Your task to perform on an android device: uninstall "Airtel Thanks" Image 0: 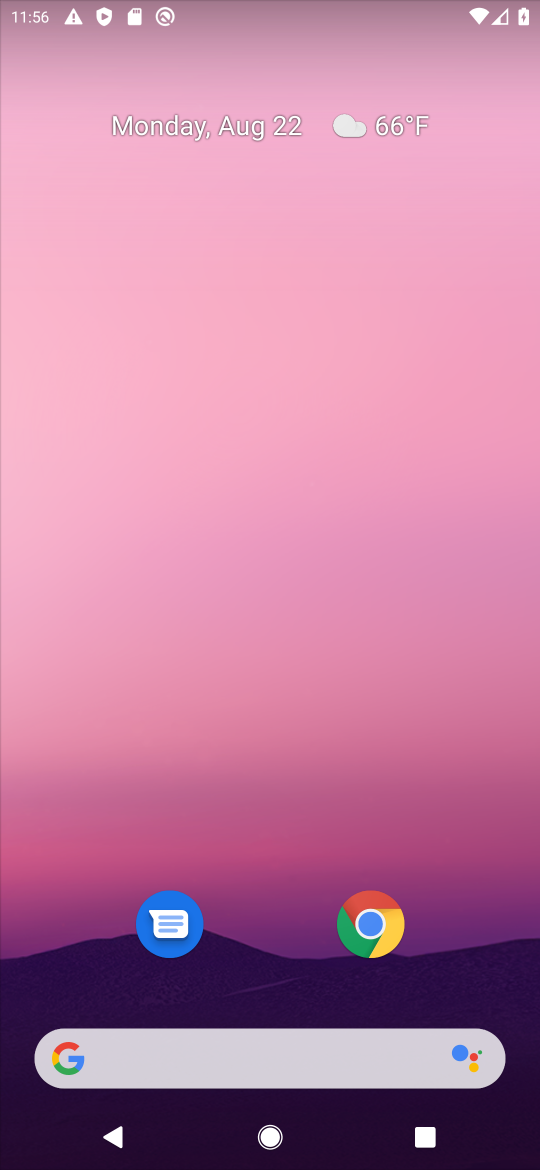
Step 0: press home button
Your task to perform on an android device: uninstall "Airtel Thanks" Image 1: 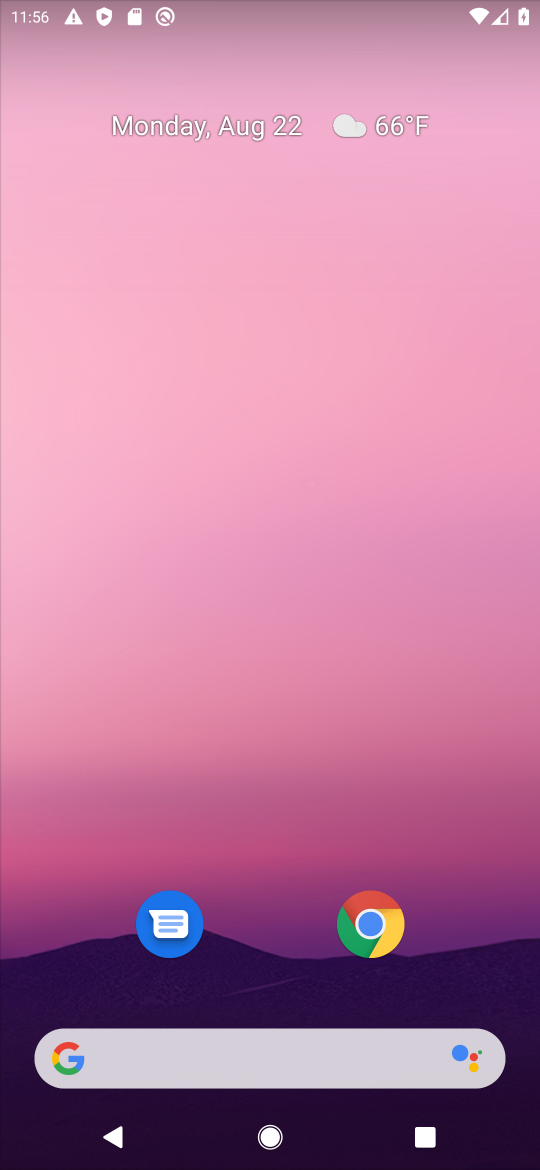
Step 1: drag from (454, 681) to (454, 122)
Your task to perform on an android device: uninstall "Airtel Thanks" Image 2: 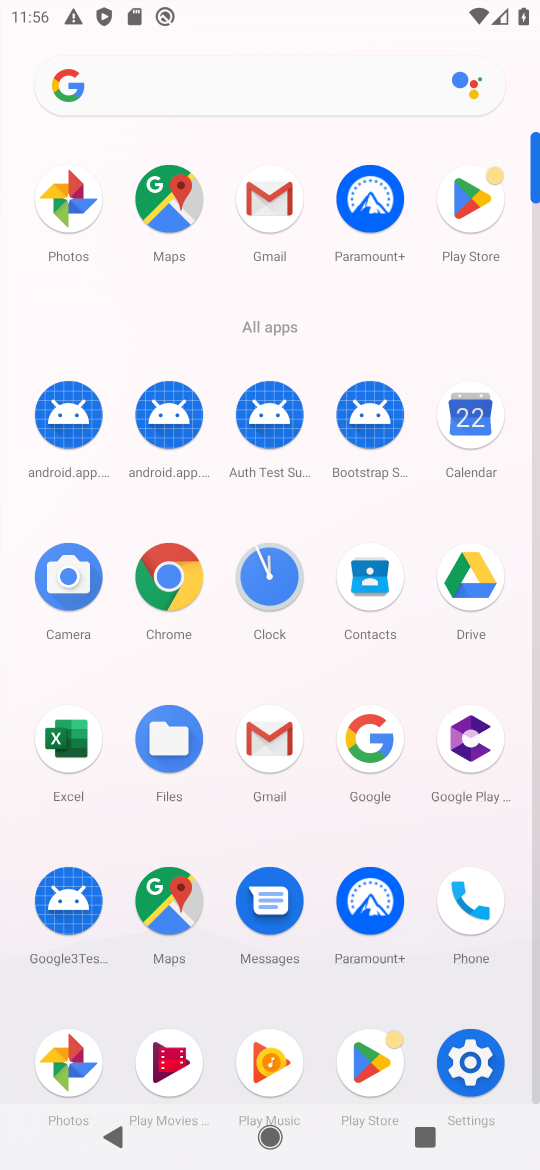
Step 2: click (484, 188)
Your task to perform on an android device: uninstall "Airtel Thanks" Image 3: 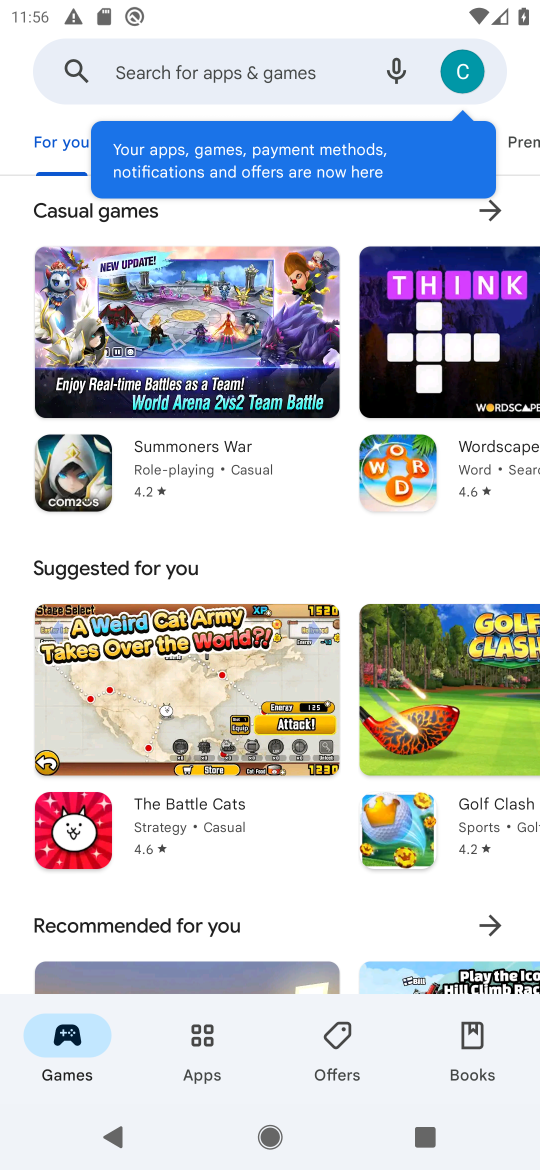
Step 3: click (125, 78)
Your task to perform on an android device: uninstall "Airtel Thanks" Image 4: 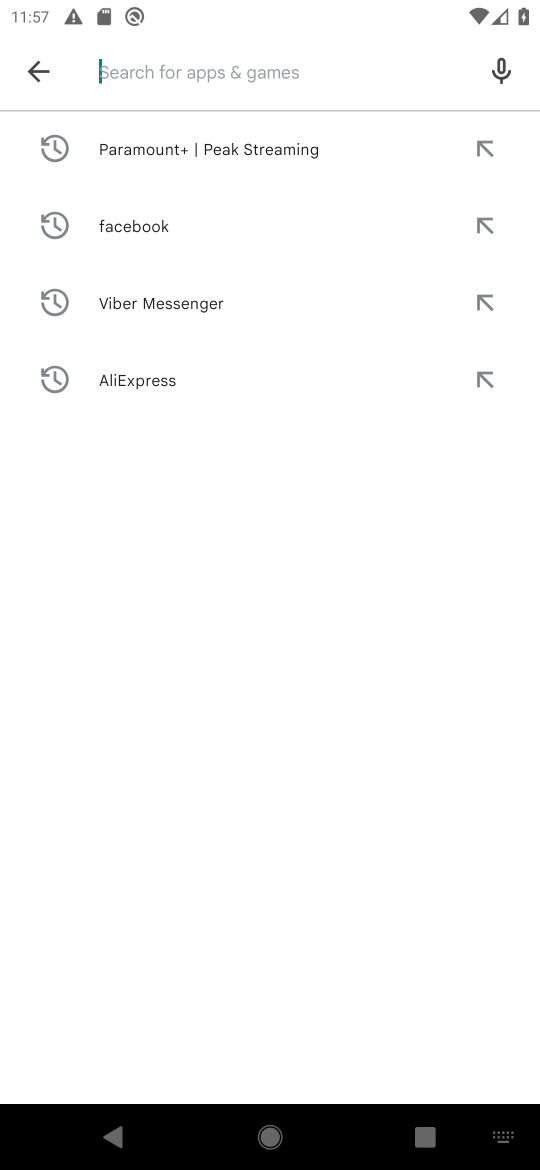
Step 4: type "Airtel Thanks"
Your task to perform on an android device: uninstall "Airtel Thanks" Image 5: 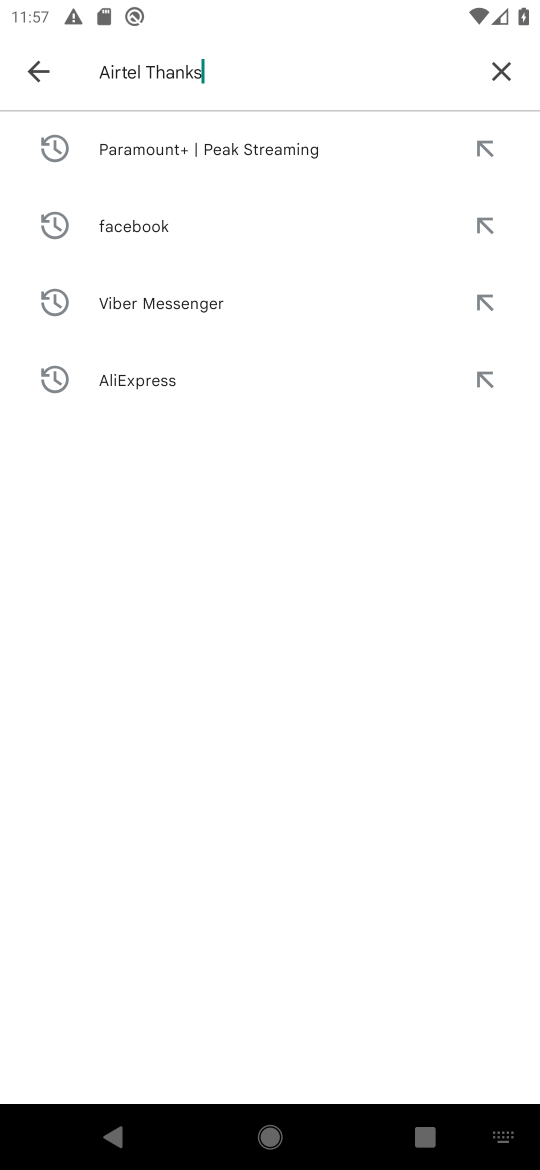
Step 5: press enter
Your task to perform on an android device: uninstall "Airtel Thanks" Image 6: 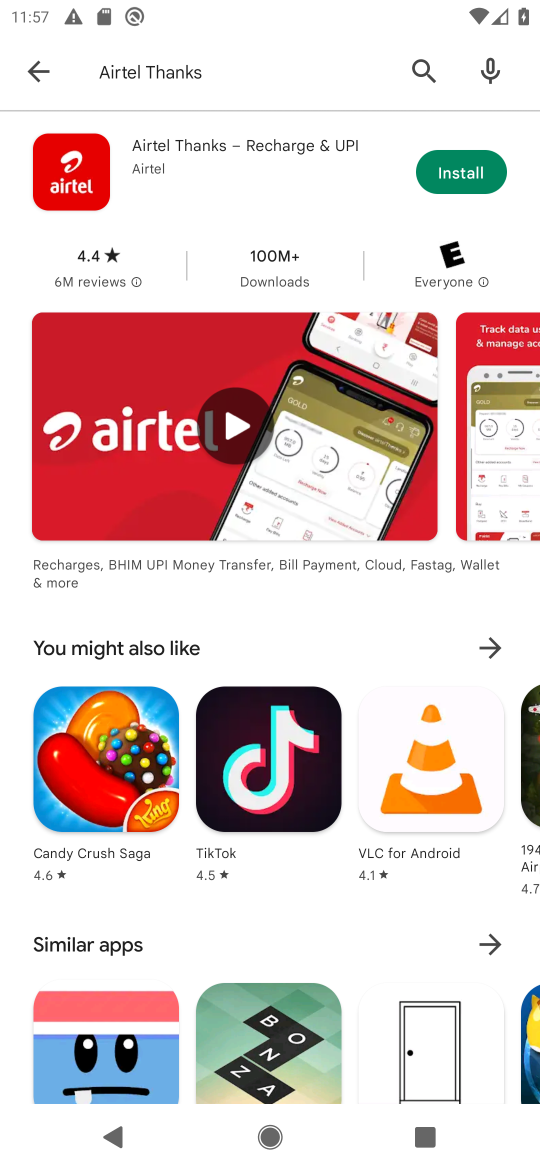
Step 6: task complete